Your task to perform on an android device: make emails show in primary in the gmail app Image 0: 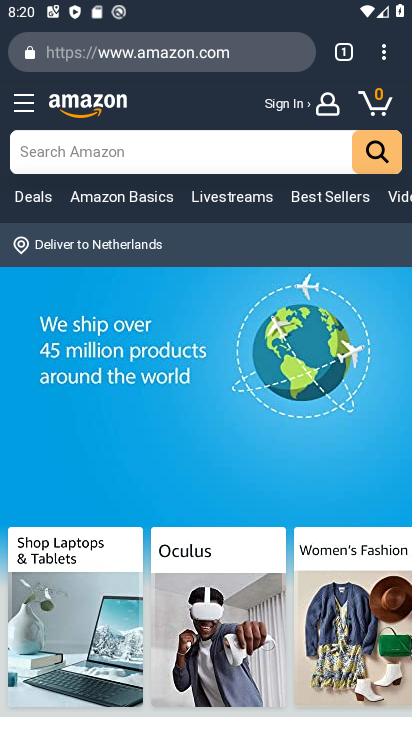
Step 0: press home button
Your task to perform on an android device: make emails show in primary in the gmail app Image 1: 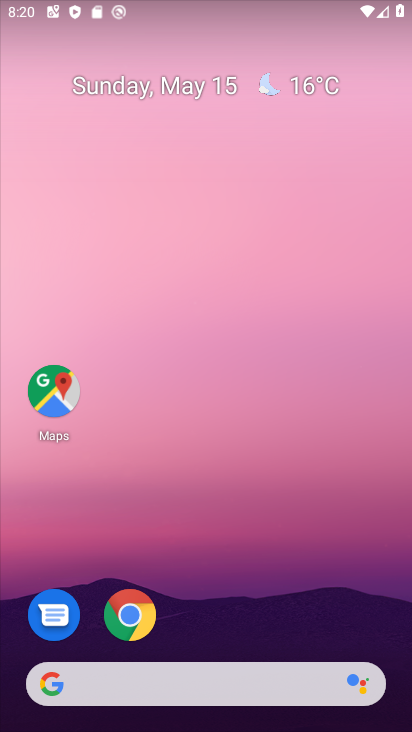
Step 1: drag from (249, 592) to (244, 78)
Your task to perform on an android device: make emails show in primary in the gmail app Image 2: 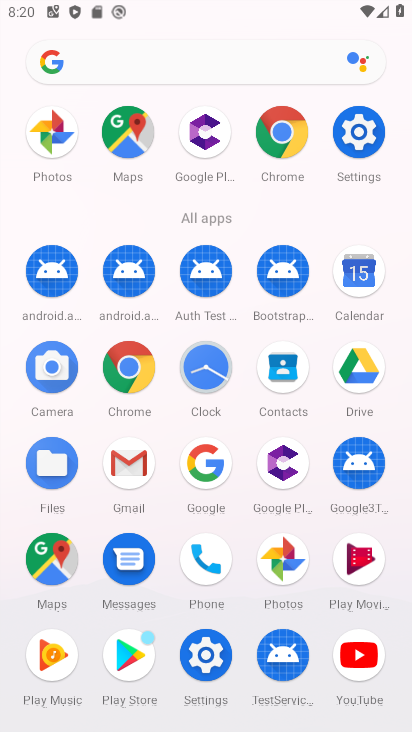
Step 2: click (137, 454)
Your task to perform on an android device: make emails show in primary in the gmail app Image 3: 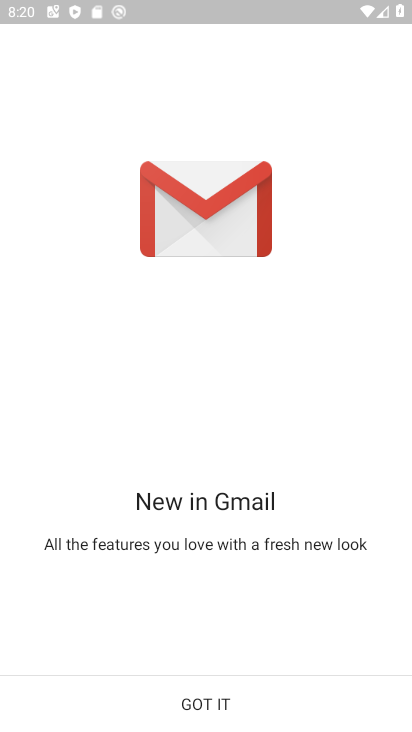
Step 3: click (213, 709)
Your task to perform on an android device: make emails show in primary in the gmail app Image 4: 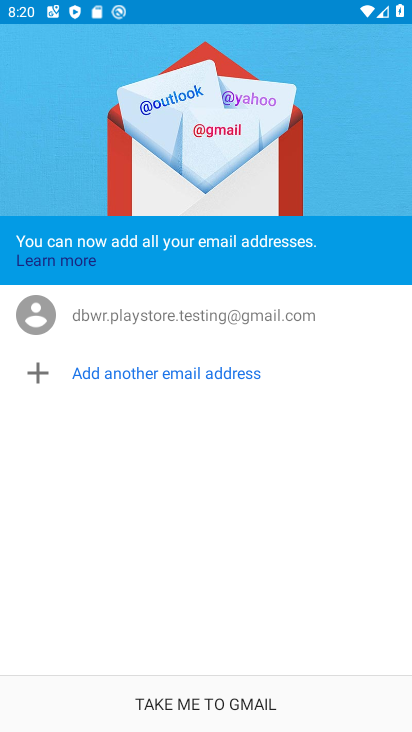
Step 4: click (195, 708)
Your task to perform on an android device: make emails show in primary in the gmail app Image 5: 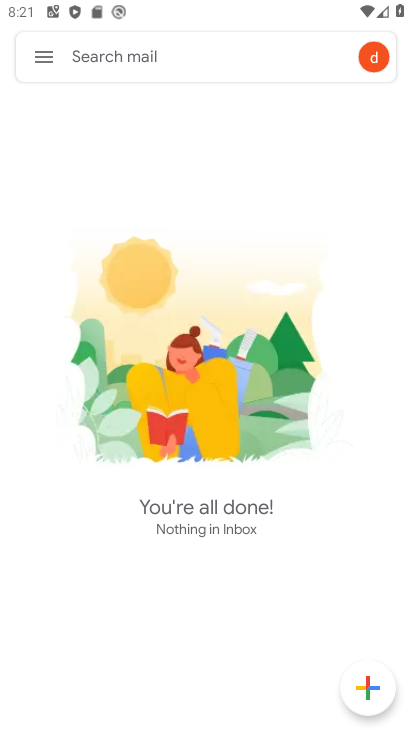
Step 5: click (45, 59)
Your task to perform on an android device: make emails show in primary in the gmail app Image 6: 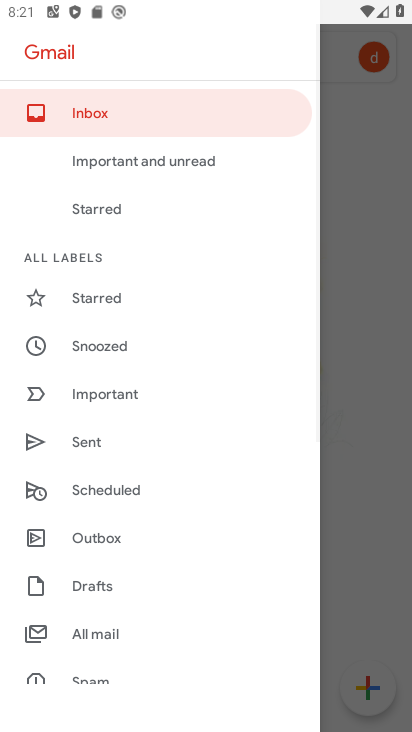
Step 6: drag from (112, 614) to (86, 308)
Your task to perform on an android device: make emails show in primary in the gmail app Image 7: 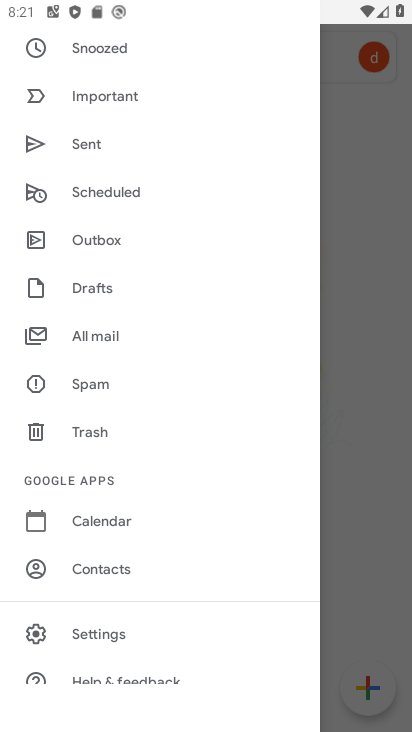
Step 7: click (126, 638)
Your task to perform on an android device: make emails show in primary in the gmail app Image 8: 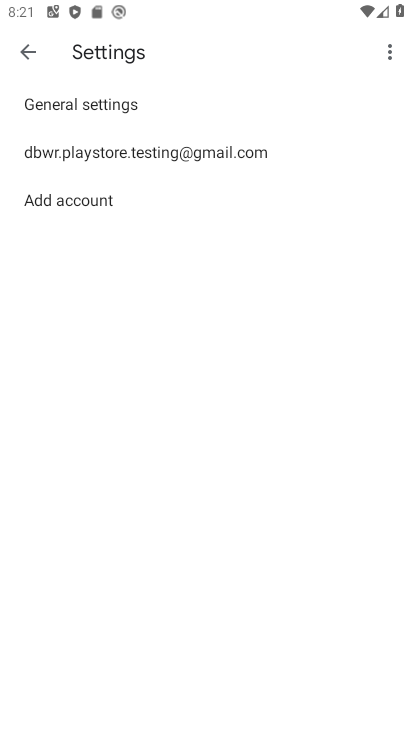
Step 8: click (146, 148)
Your task to perform on an android device: make emails show in primary in the gmail app Image 9: 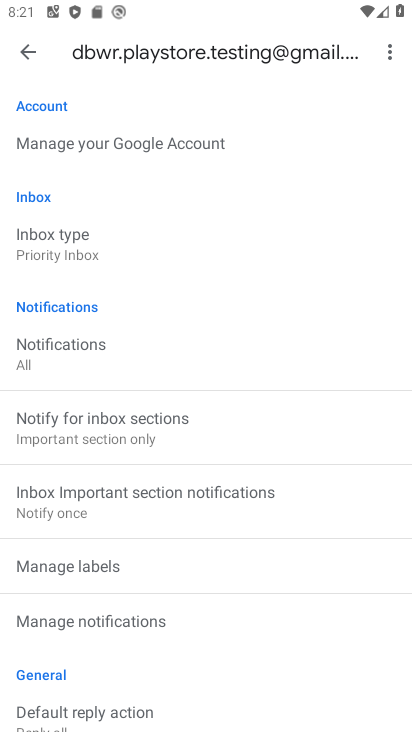
Step 9: click (95, 248)
Your task to perform on an android device: make emails show in primary in the gmail app Image 10: 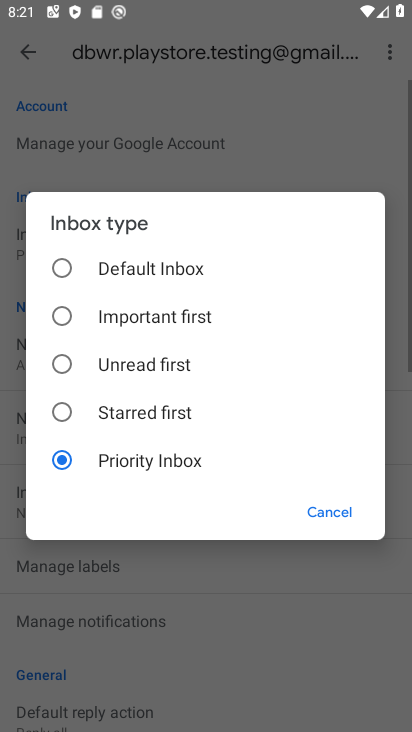
Step 10: click (94, 266)
Your task to perform on an android device: make emails show in primary in the gmail app Image 11: 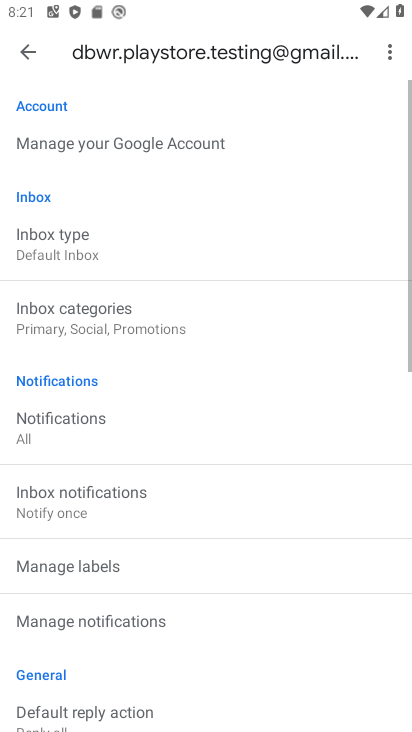
Step 11: click (102, 307)
Your task to perform on an android device: make emails show in primary in the gmail app Image 12: 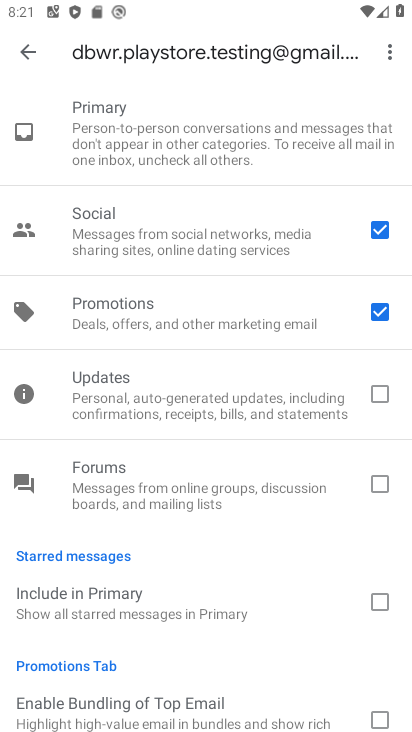
Step 12: click (380, 227)
Your task to perform on an android device: make emails show in primary in the gmail app Image 13: 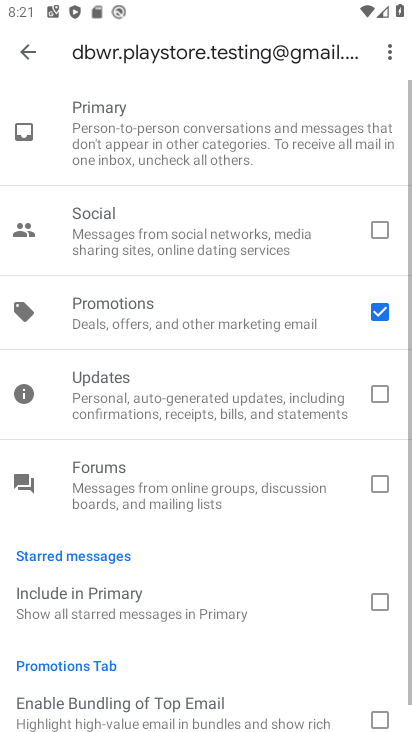
Step 13: click (388, 313)
Your task to perform on an android device: make emails show in primary in the gmail app Image 14: 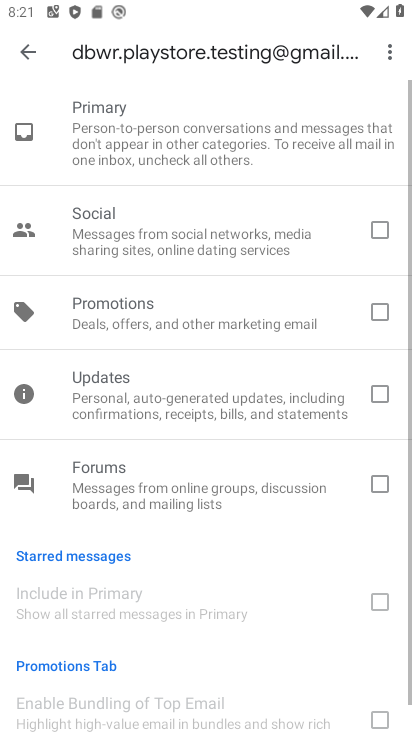
Step 14: click (33, 48)
Your task to perform on an android device: make emails show in primary in the gmail app Image 15: 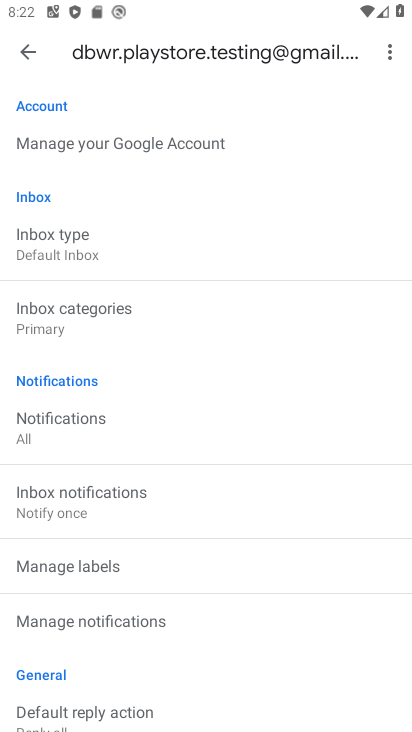
Step 15: task complete